Your task to perform on an android device: remove spam from my inbox in the gmail app Image 0: 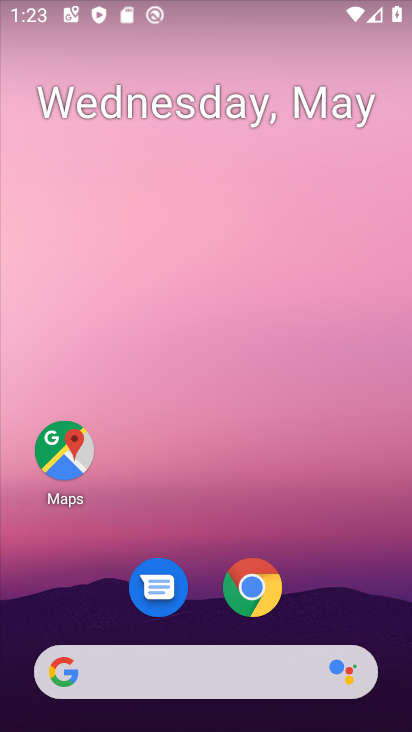
Step 0: drag from (330, 566) to (314, 97)
Your task to perform on an android device: remove spam from my inbox in the gmail app Image 1: 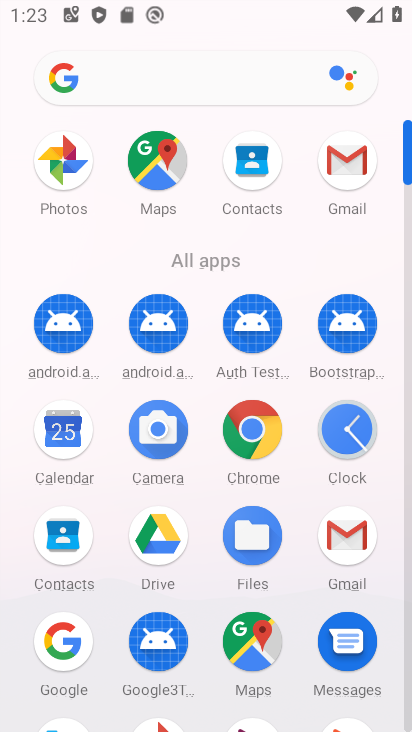
Step 1: click (351, 191)
Your task to perform on an android device: remove spam from my inbox in the gmail app Image 2: 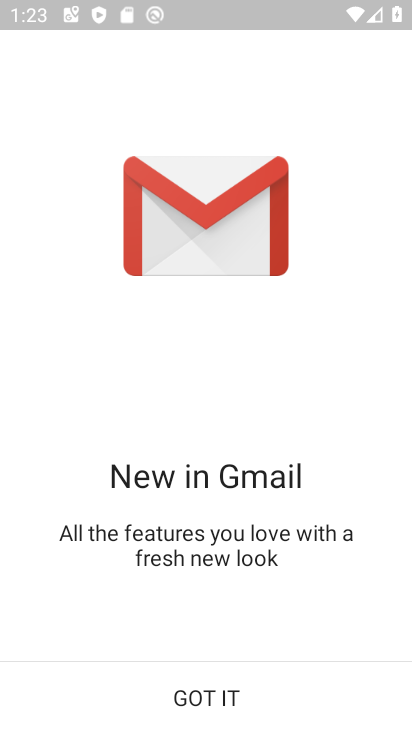
Step 2: click (306, 702)
Your task to perform on an android device: remove spam from my inbox in the gmail app Image 3: 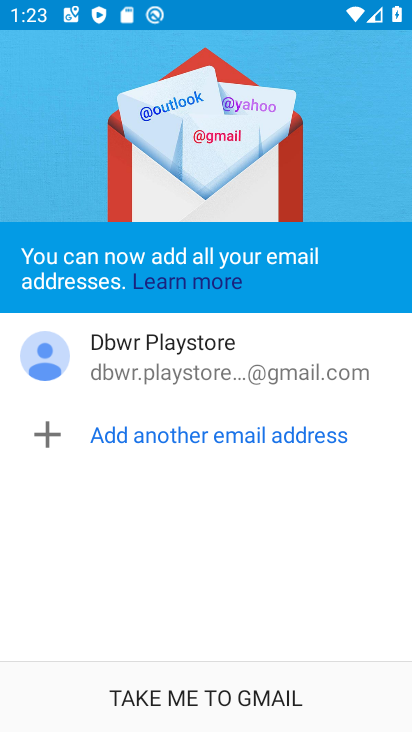
Step 3: drag from (38, 108) to (114, 98)
Your task to perform on an android device: remove spam from my inbox in the gmail app Image 4: 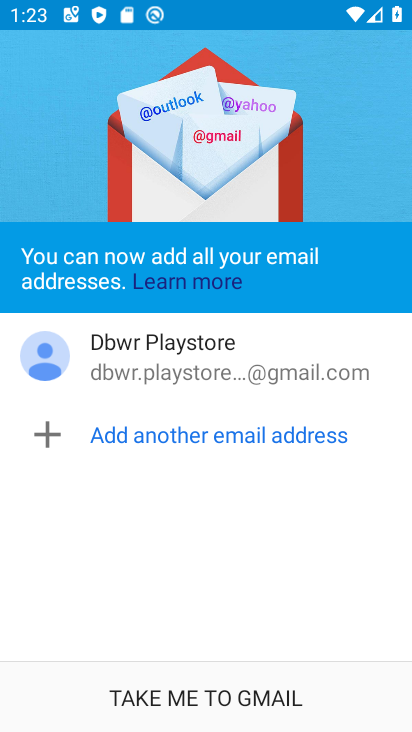
Step 4: click (165, 680)
Your task to perform on an android device: remove spam from my inbox in the gmail app Image 5: 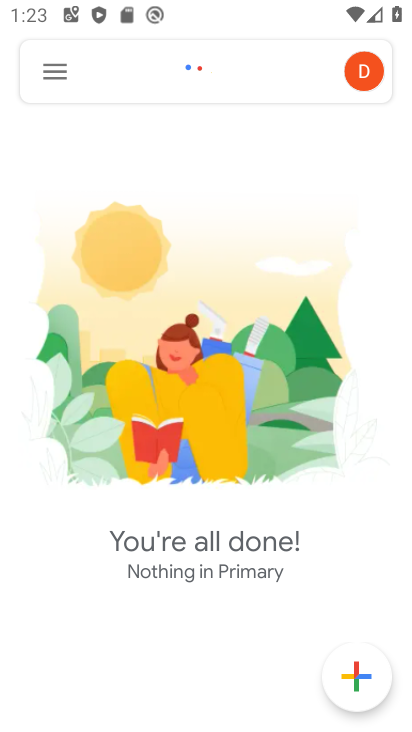
Step 5: click (55, 75)
Your task to perform on an android device: remove spam from my inbox in the gmail app Image 6: 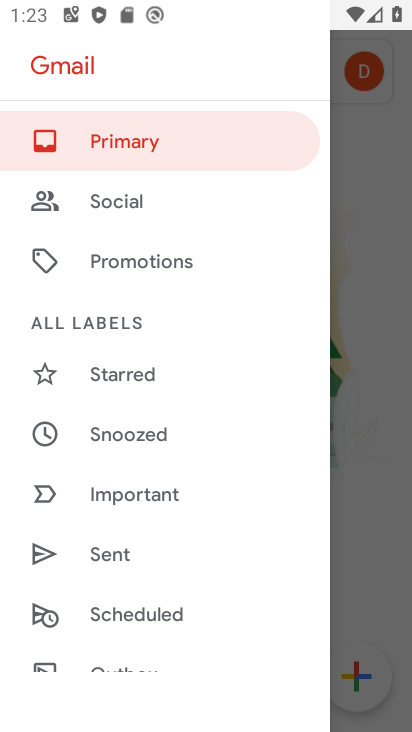
Step 6: drag from (136, 589) to (84, 121)
Your task to perform on an android device: remove spam from my inbox in the gmail app Image 7: 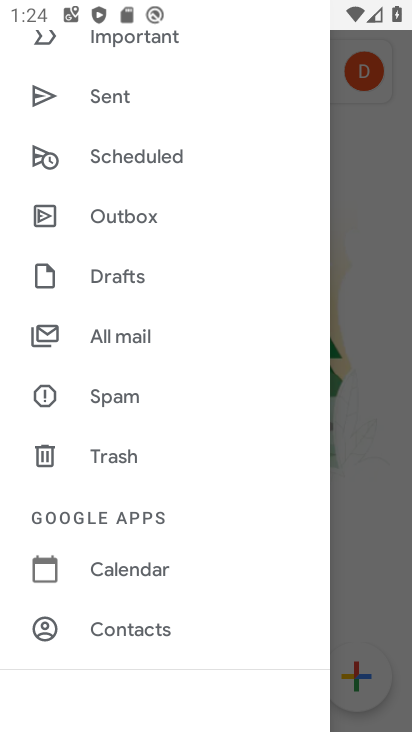
Step 7: click (125, 399)
Your task to perform on an android device: remove spam from my inbox in the gmail app Image 8: 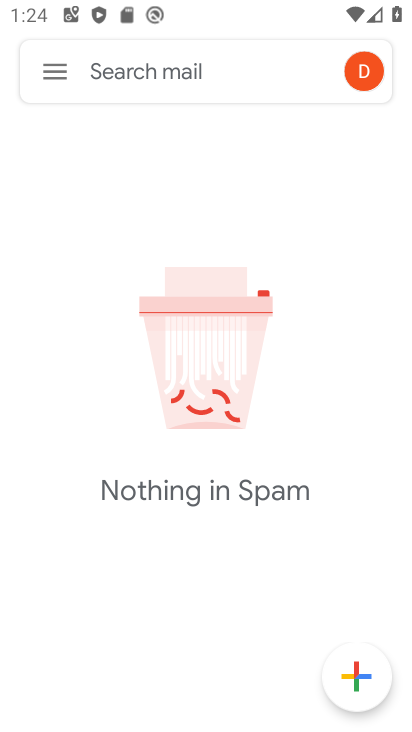
Step 8: task complete